Your task to perform on an android device: allow notifications from all sites in the chrome app Image 0: 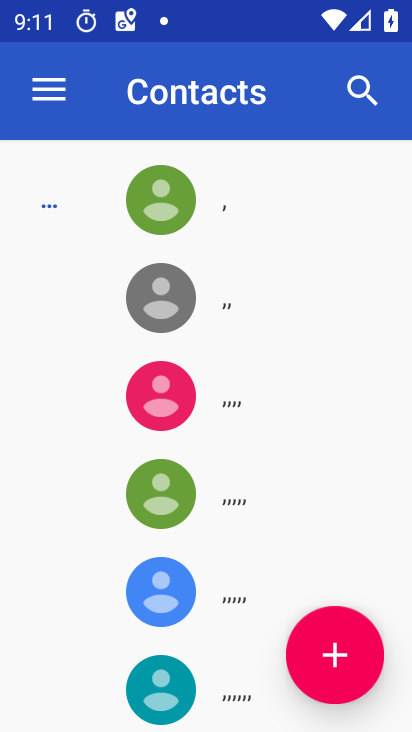
Step 0: press home button
Your task to perform on an android device: allow notifications from all sites in the chrome app Image 1: 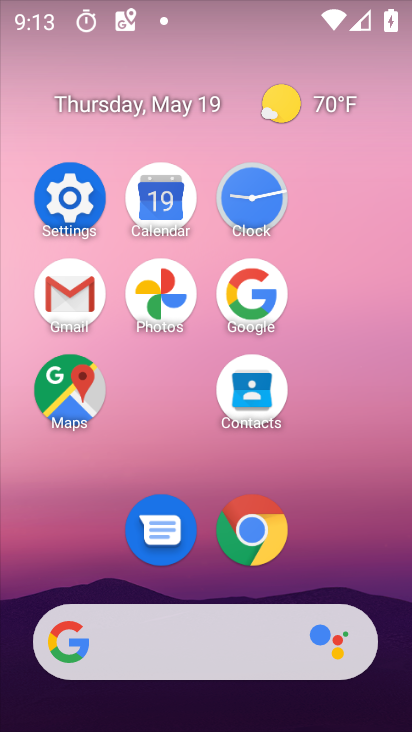
Step 1: click (247, 530)
Your task to perform on an android device: allow notifications from all sites in the chrome app Image 2: 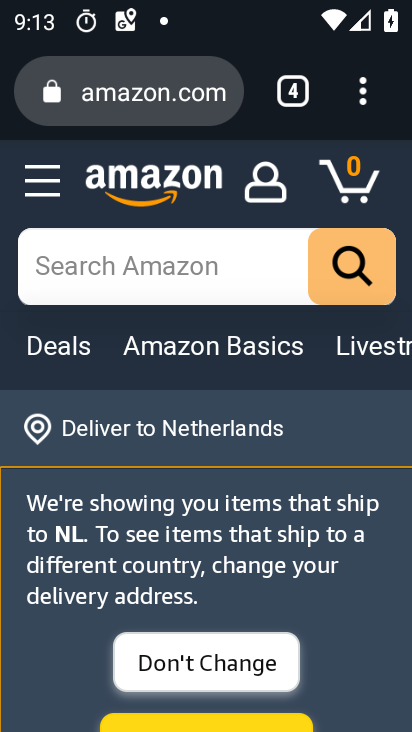
Step 2: click (353, 96)
Your task to perform on an android device: allow notifications from all sites in the chrome app Image 3: 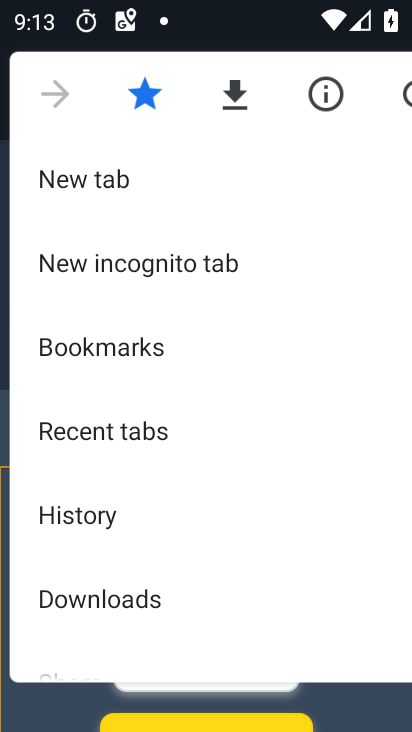
Step 3: drag from (265, 527) to (274, 182)
Your task to perform on an android device: allow notifications from all sites in the chrome app Image 4: 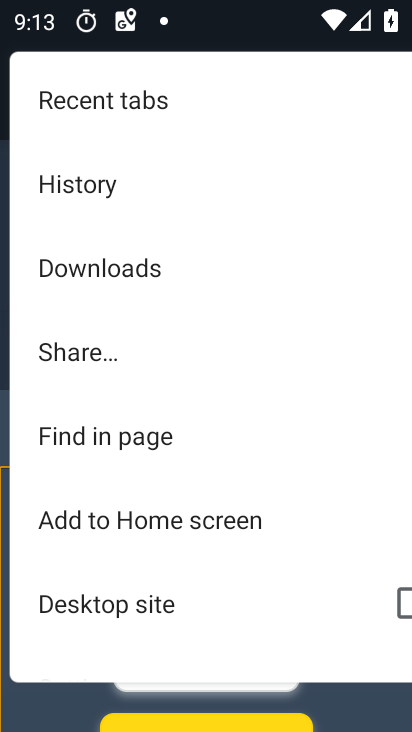
Step 4: drag from (192, 597) to (200, 225)
Your task to perform on an android device: allow notifications from all sites in the chrome app Image 5: 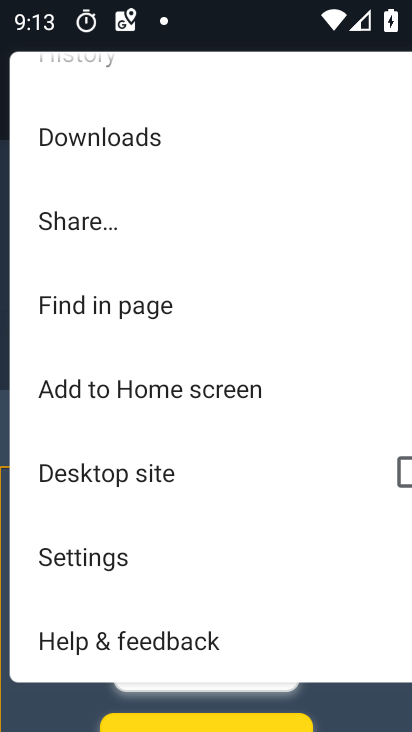
Step 5: click (174, 576)
Your task to perform on an android device: allow notifications from all sites in the chrome app Image 6: 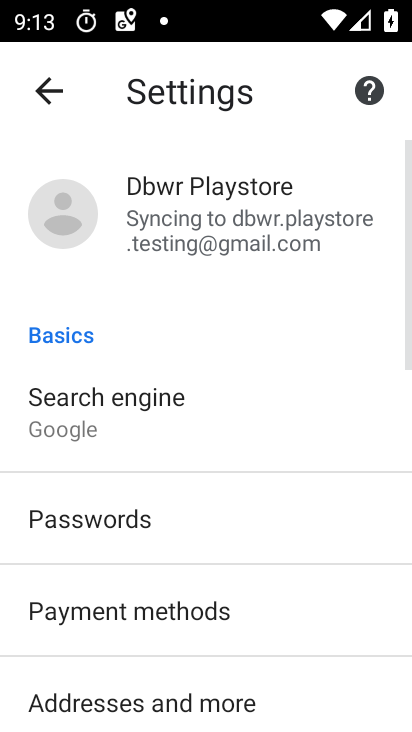
Step 6: drag from (174, 576) to (198, 208)
Your task to perform on an android device: allow notifications from all sites in the chrome app Image 7: 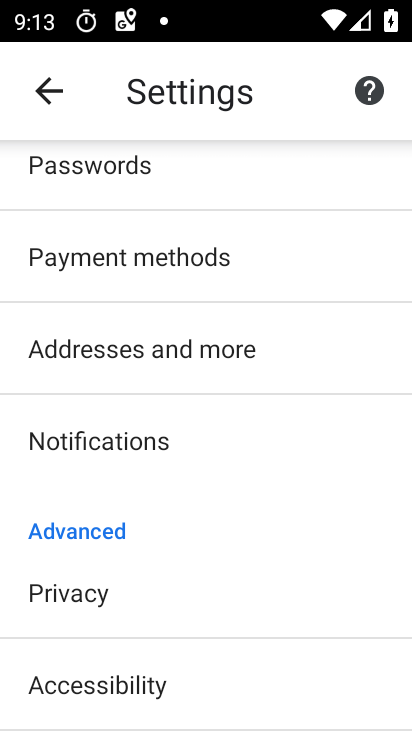
Step 7: drag from (261, 561) to (275, 216)
Your task to perform on an android device: allow notifications from all sites in the chrome app Image 8: 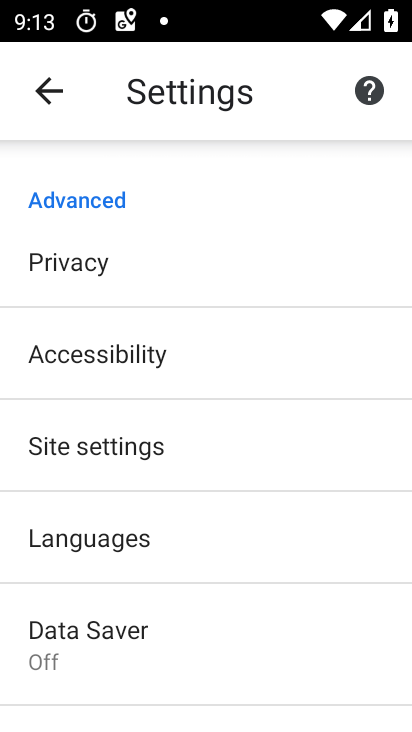
Step 8: click (243, 442)
Your task to perform on an android device: allow notifications from all sites in the chrome app Image 9: 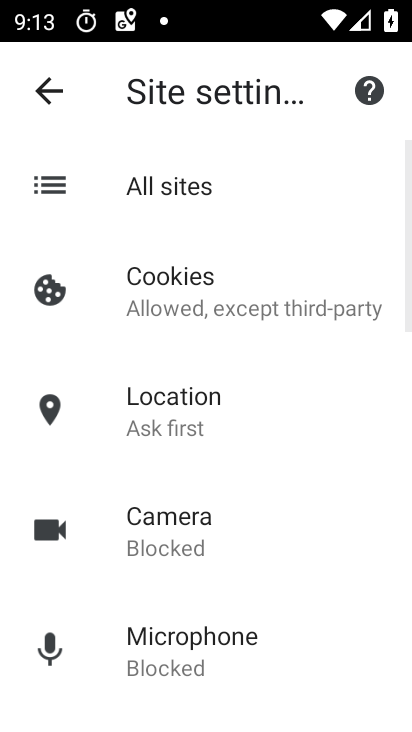
Step 9: click (309, 292)
Your task to perform on an android device: allow notifications from all sites in the chrome app Image 10: 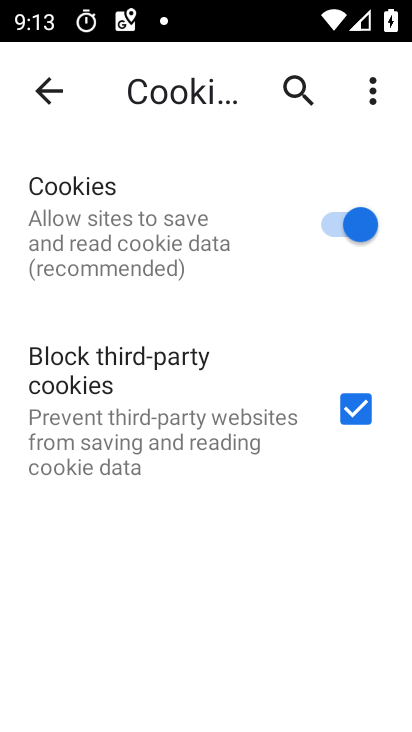
Step 10: task complete